Your task to perform on an android device: turn on translation in the chrome app Image 0: 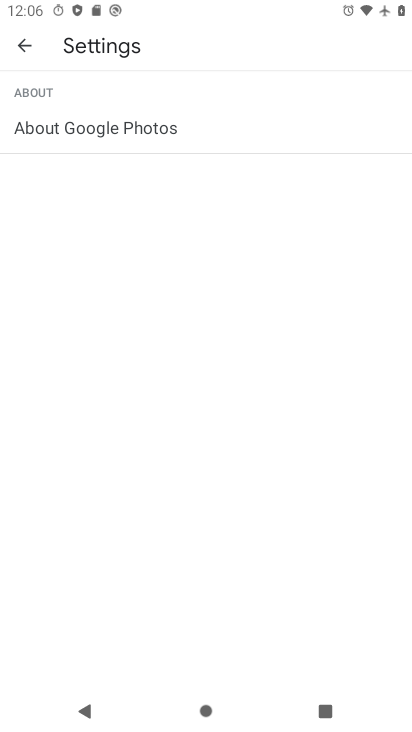
Step 0: press home button
Your task to perform on an android device: turn on translation in the chrome app Image 1: 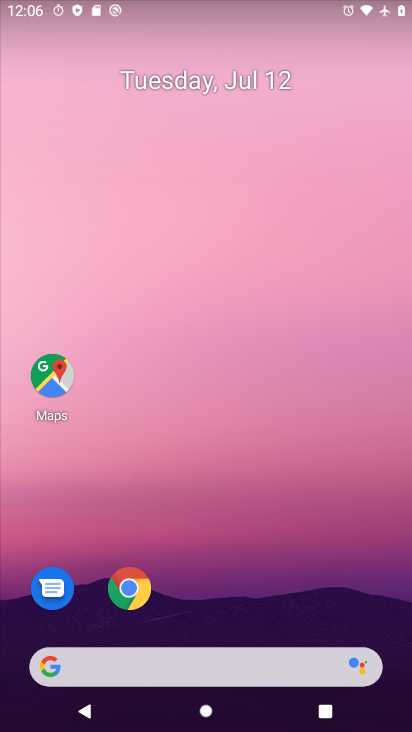
Step 1: click (142, 595)
Your task to perform on an android device: turn on translation in the chrome app Image 2: 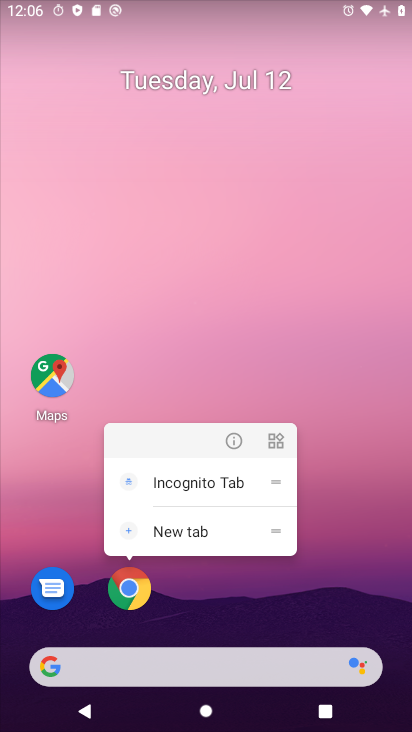
Step 2: click (128, 592)
Your task to perform on an android device: turn on translation in the chrome app Image 3: 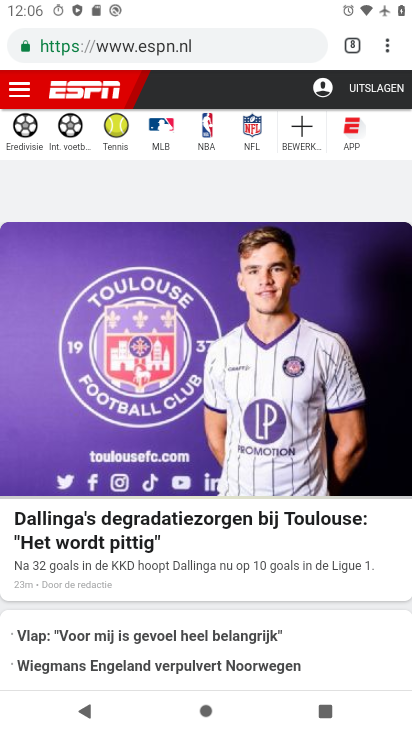
Step 3: drag from (385, 49) to (268, 549)
Your task to perform on an android device: turn on translation in the chrome app Image 4: 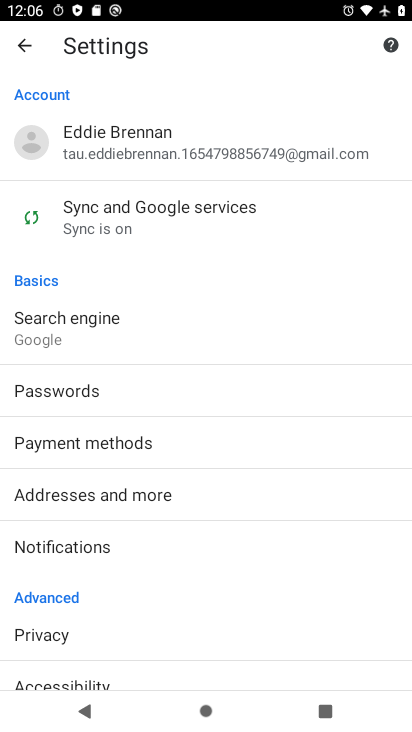
Step 4: drag from (105, 625) to (271, 117)
Your task to perform on an android device: turn on translation in the chrome app Image 5: 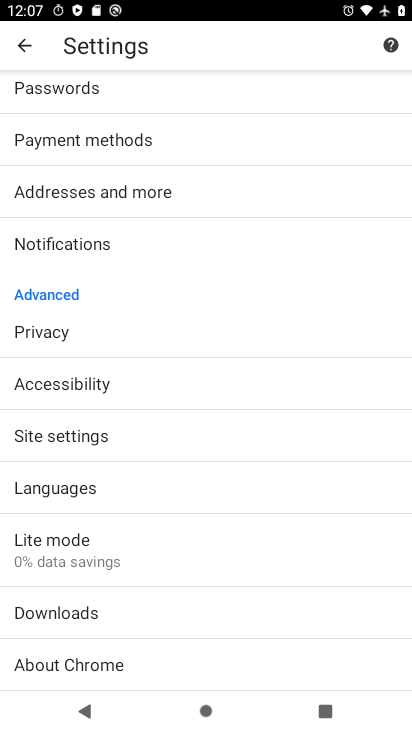
Step 5: click (89, 498)
Your task to perform on an android device: turn on translation in the chrome app Image 6: 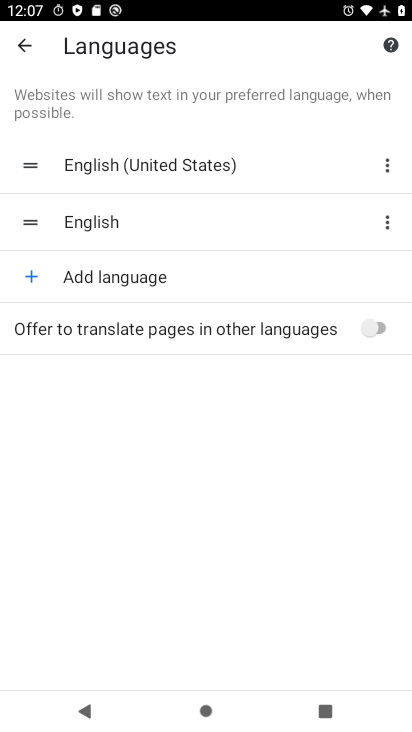
Step 6: click (377, 326)
Your task to perform on an android device: turn on translation in the chrome app Image 7: 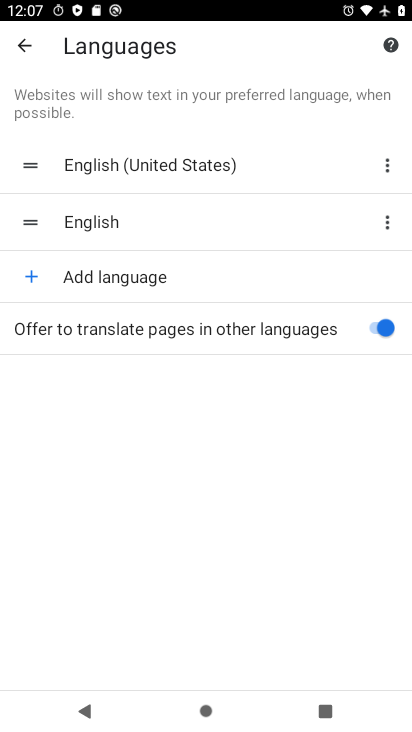
Step 7: task complete